Your task to perform on an android device: turn off sleep mode Image 0: 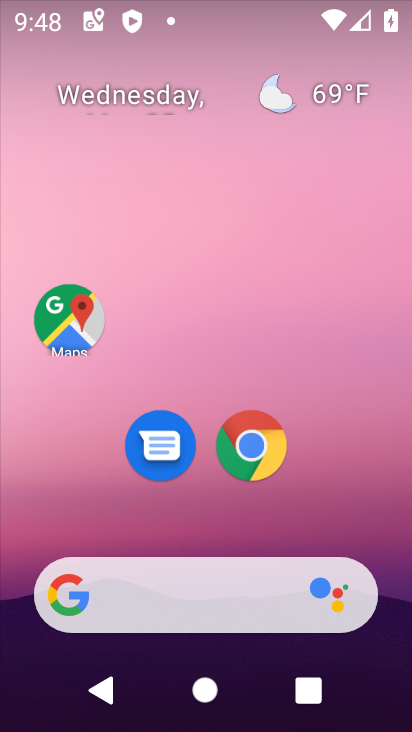
Step 0: drag from (394, 523) to (396, 0)
Your task to perform on an android device: turn off sleep mode Image 1: 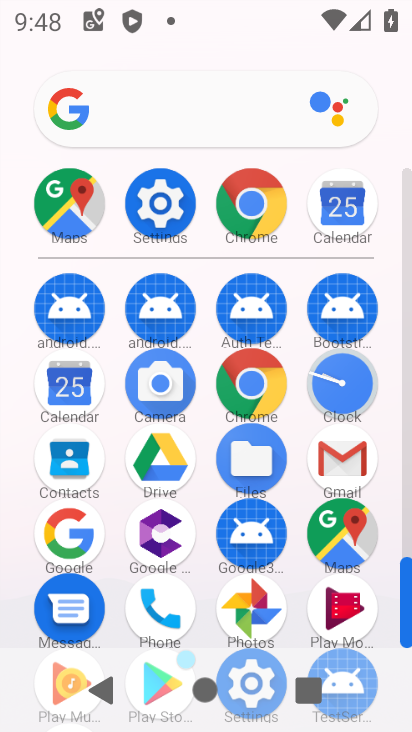
Step 1: drag from (407, 614) to (405, 730)
Your task to perform on an android device: turn off sleep mode Image 2: 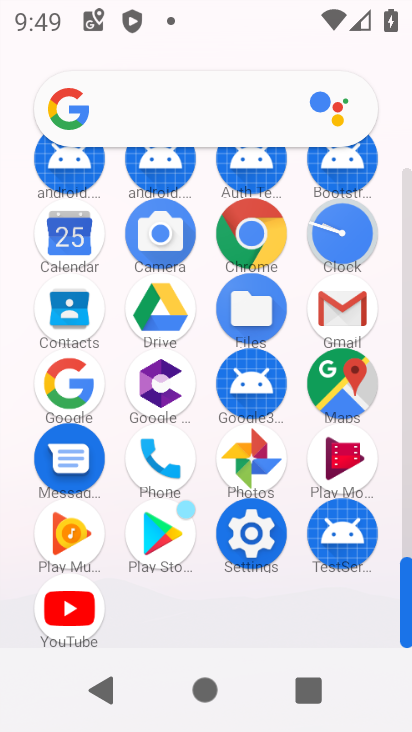
Step 2: click (242, 560)
Your task to perform on an android device: turn off sleep mode Image 3: 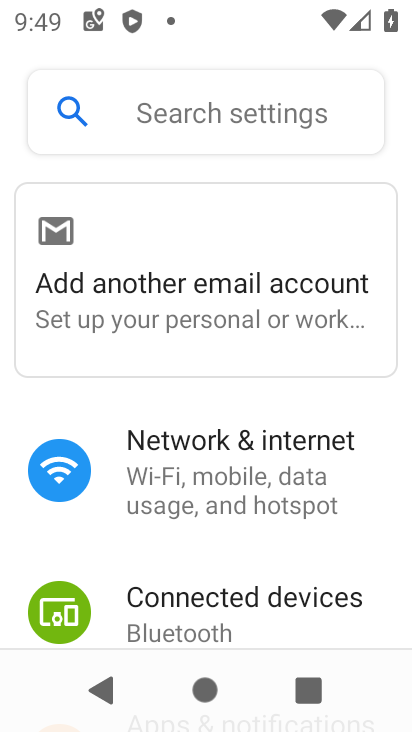
Step 3: drag from (297, 614) to (323, 110)
Your task to perform on an android device: turn off sleep mode Image 4: 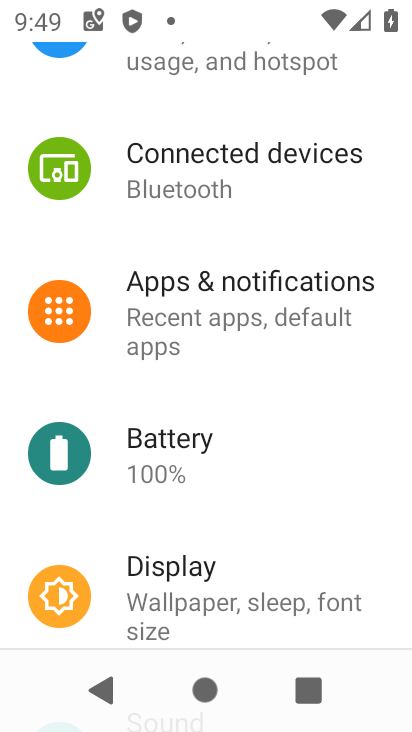
Step 4: click (229, 464)
Your task to perform on an android device: turn off sleep mode Image 5: 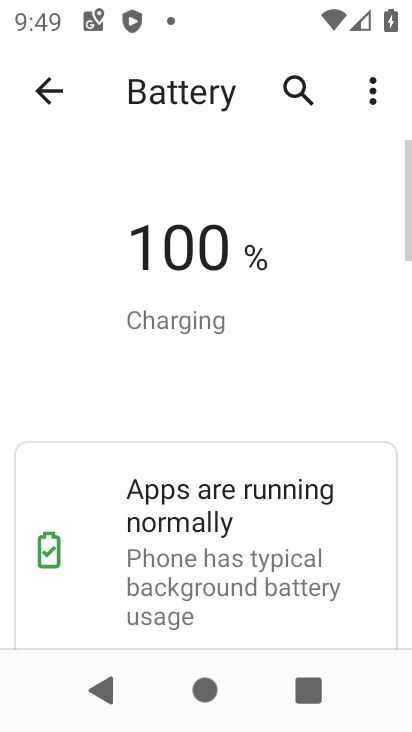
Step 5: click (242, 572)
Your task to perform on an android device: turn off sleep mode Image 6: 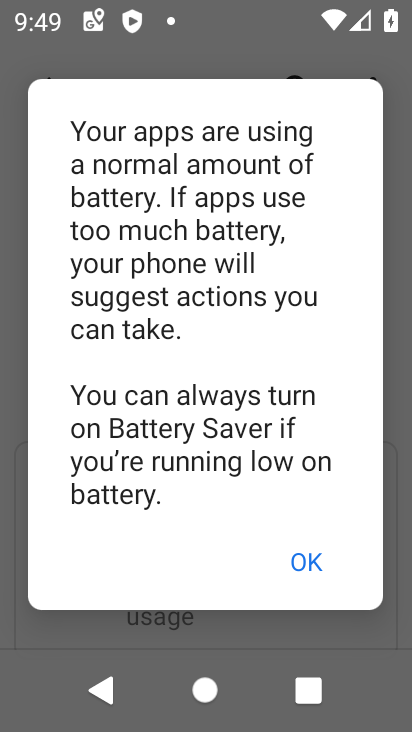
Step 6: click (308, 572)
Your task to perform on an android device: turn off sleep mode Image 7: 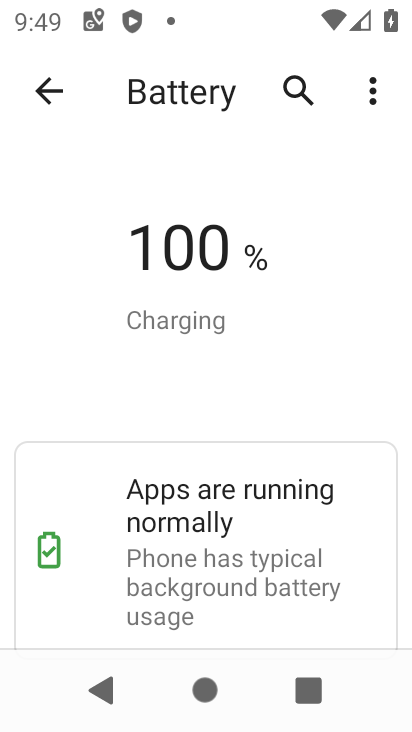
Step 7: drag from (308, 572) to (323, 296)
Your task to perform on an android device: turn off sleep mode Image 8: 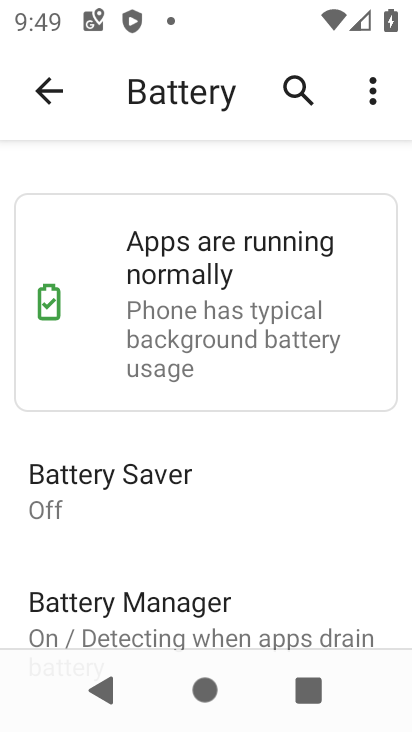
Step 8: drag from (263, 561) to (367, 96)
Your task to perform on an android device: turn off sleep mode Image 9: 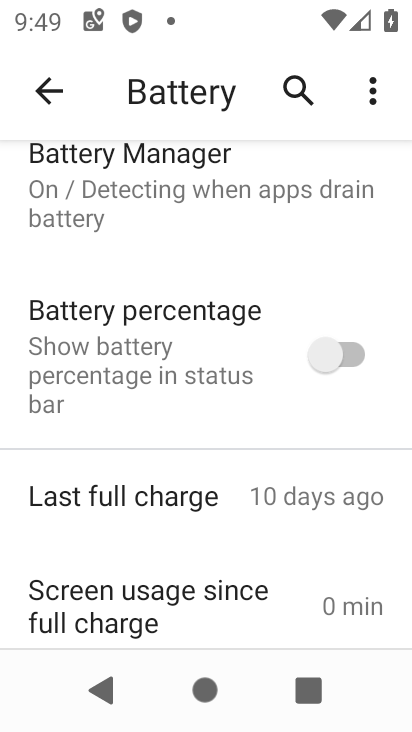
Step 9: click (253, 181)
Your task to perform on an android device: turn off sleep mode Image 10: 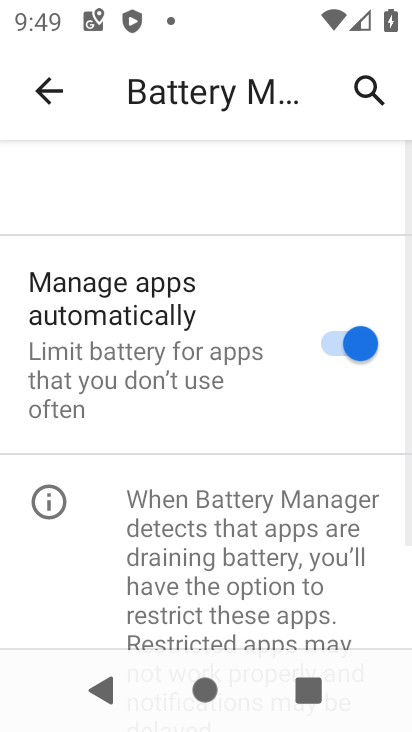
Step 10: drag from (275, 509) to (299, 140)
Your task to perform on an android device: turn off sleep mode Image 11: 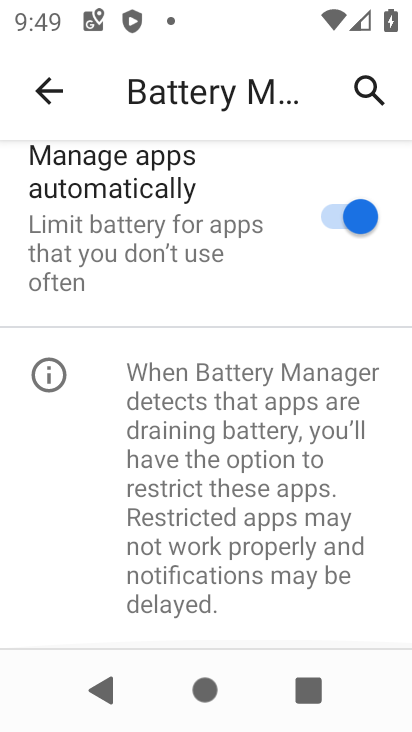
Step 11: drag from (290, 219) to (408, 706)
Your task to perform on an android device: turn off sleep mode Image 12: 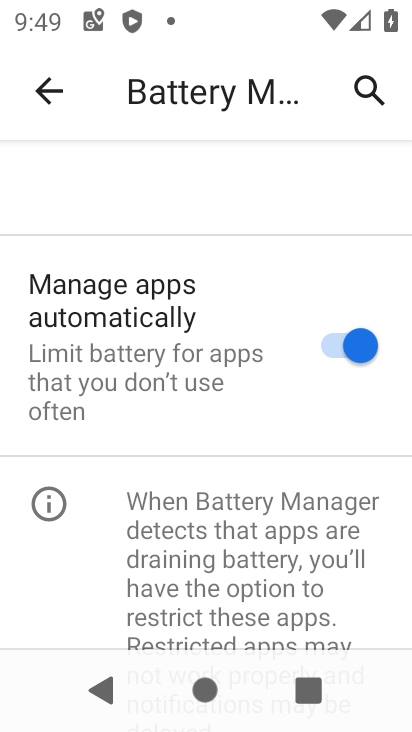
Step 12: click (74, 91)
Your task to perform on an android device: turn off sleep mode Image 13: 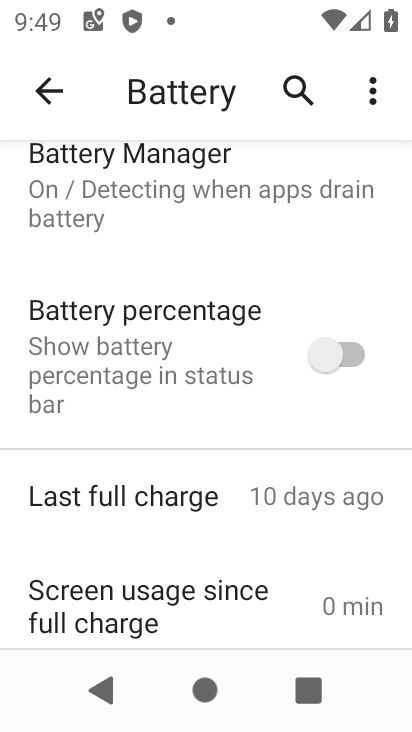
Step 13: drag from (203, 533) to (232, 405)
Your task to perform on an android device: turn off sleep mode Image 14: 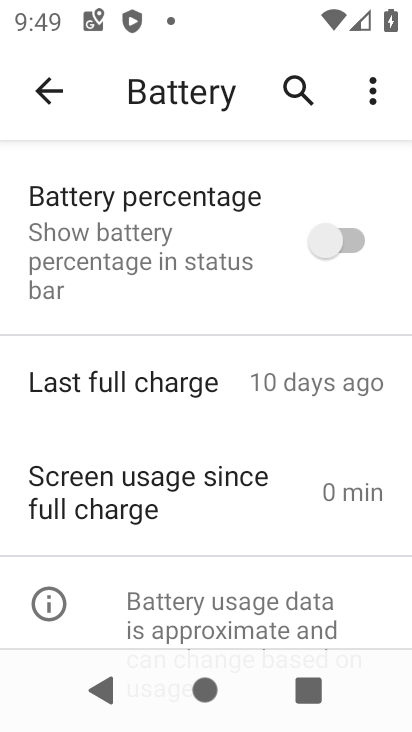
Step 14: click (219, 532)
Your task to perform on an android device: turn off sleep mode Image 15: 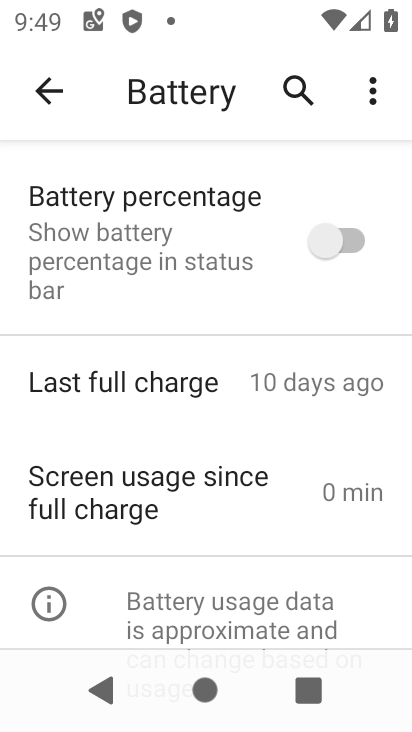
Step 15: click (238, 357)
Your task to perform on an android device: turn off sleep mode Image 16: 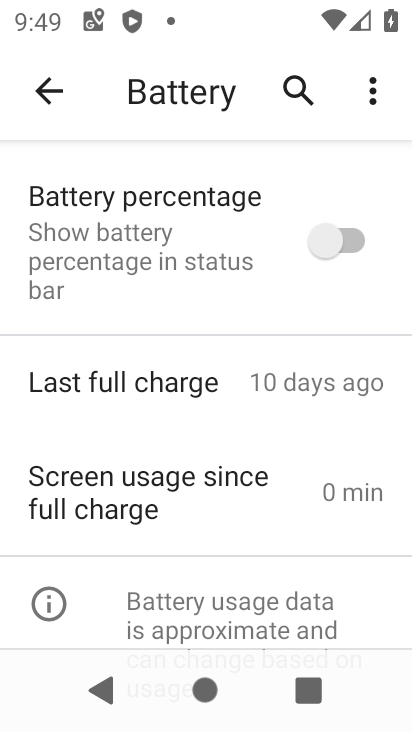
Step 16: drag from (258, 209) to (303, 707)
Your task to perform on an android device: turn off sleep mode Image 17: 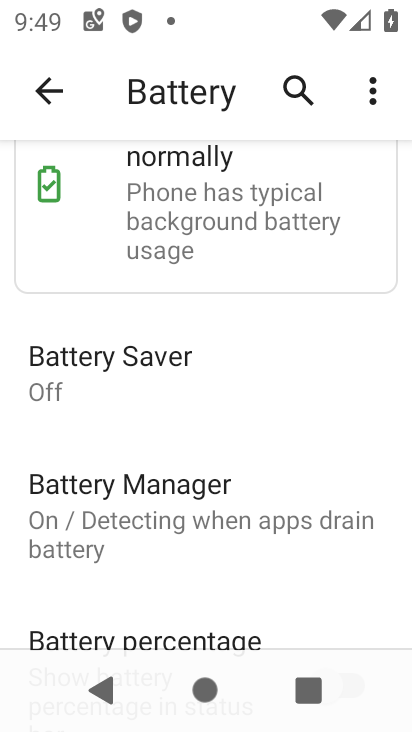
Step 17: drag from (240, 230) to (285, 646)
Your task to perform on an android device: turn off sleep mode Image 18: 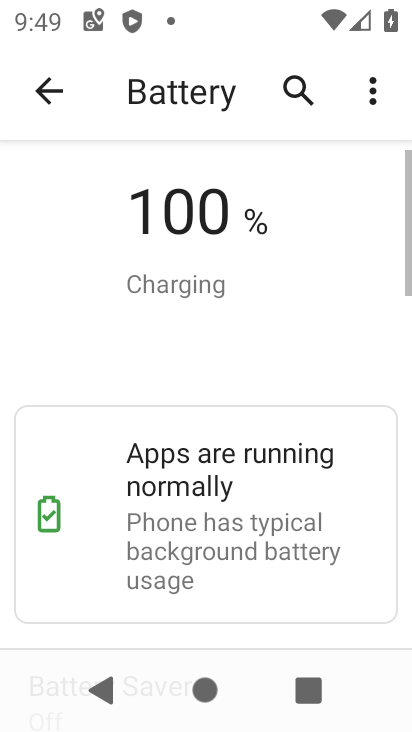
Step 18: drag from (285, 233) to (289, 632)
Your task to perform on an android device: turn off sleep mode Image 19: 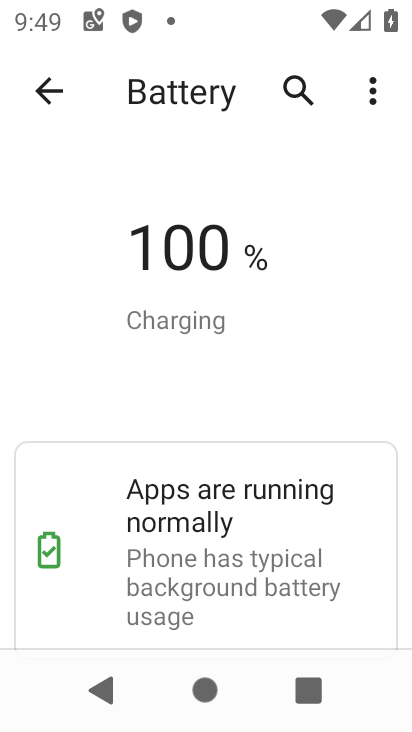
Step 19: click (376, 85)
Your task to perform on an android device: turn off sleep mode Image 20: 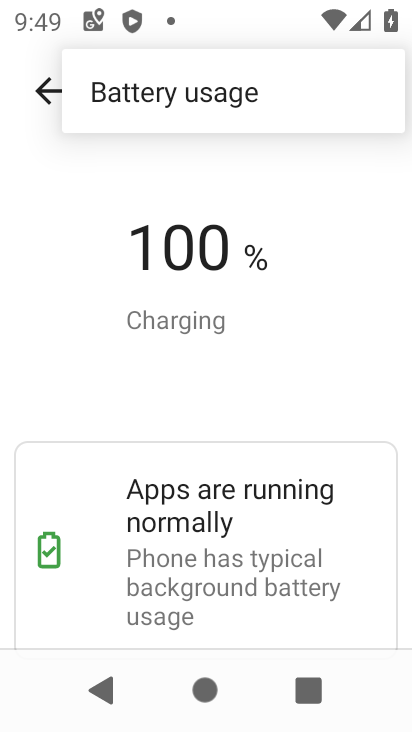
Step 20: click (283, 106)
Your task to perform on an android device: turn off sleep mode Image 21: 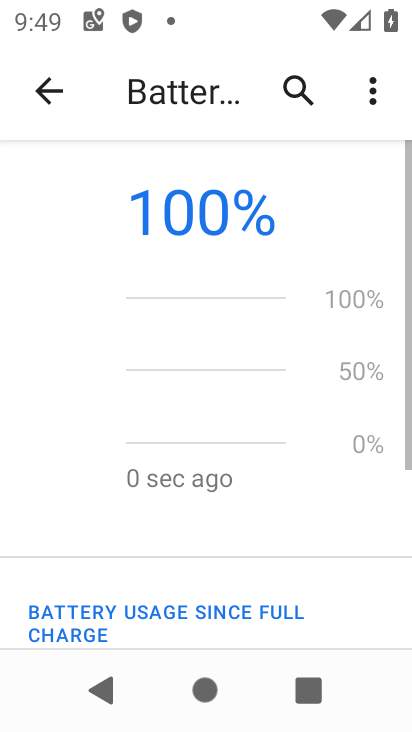
Step 21: drag from (260, 559) to (279, 150)
Your task to perform on an android device: turn off sleep mode Image 22: 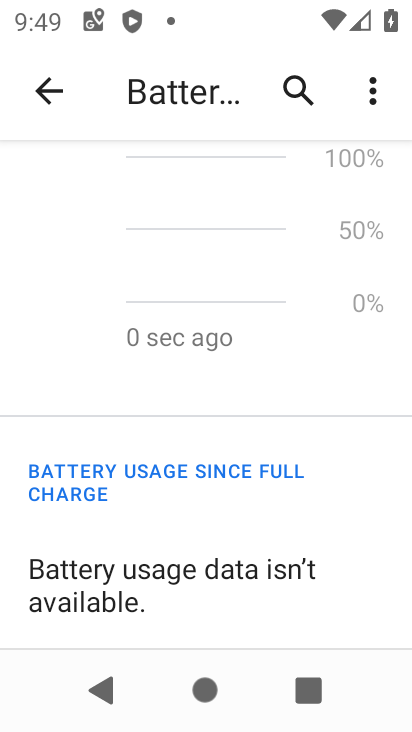
Step 22: click (109, 492)
Your task to perform on an android device: turn off sleep mode Image 23: 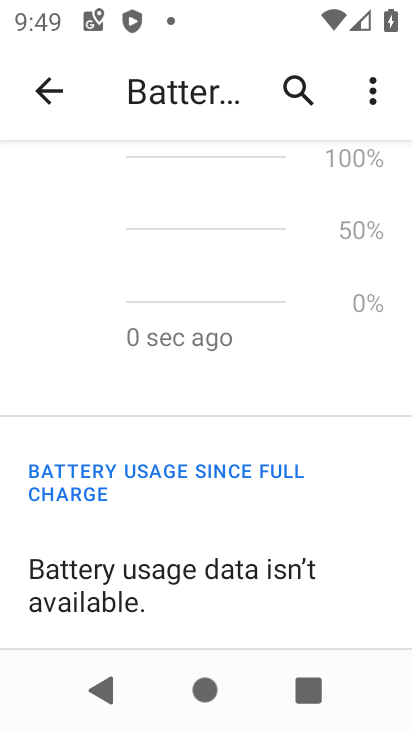
Step 23: click (120, 611)
Your task to perform on an android device: turn off sleep mode Image 24: 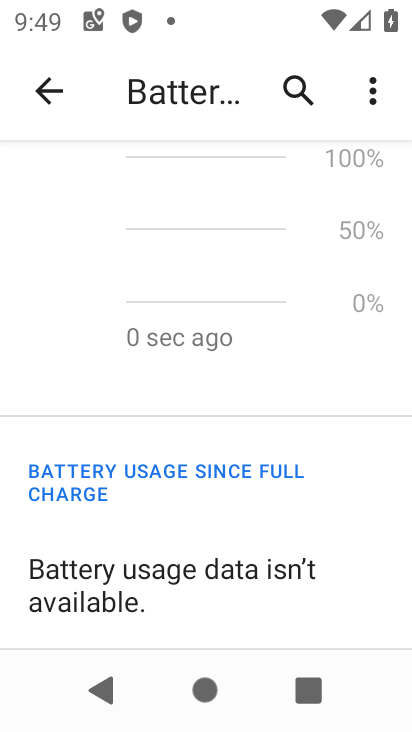
Step 24: click (49, 88)
Your task to perform on an android device: turn off sleep mode Image 25: 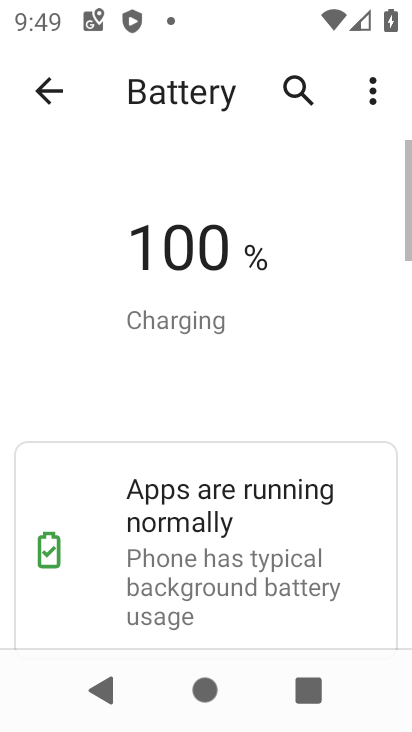
Step 25: click (49, 88)
Your task to perform on an android device: turn off sleep mode Image 26: 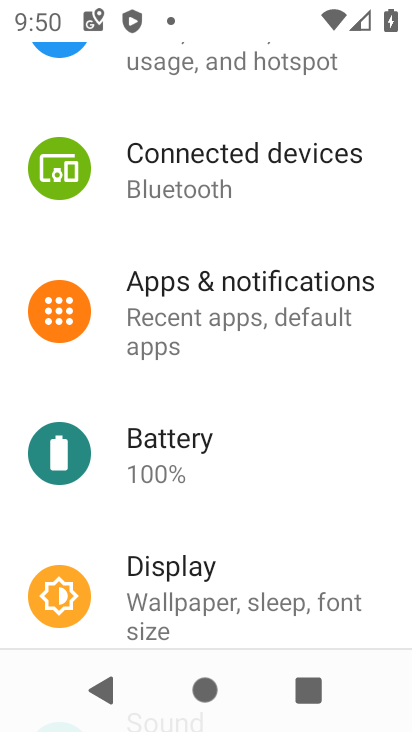
Step 26: click (240, 567)
Your task to perform on an android device: turn off sleep mode Image 27: 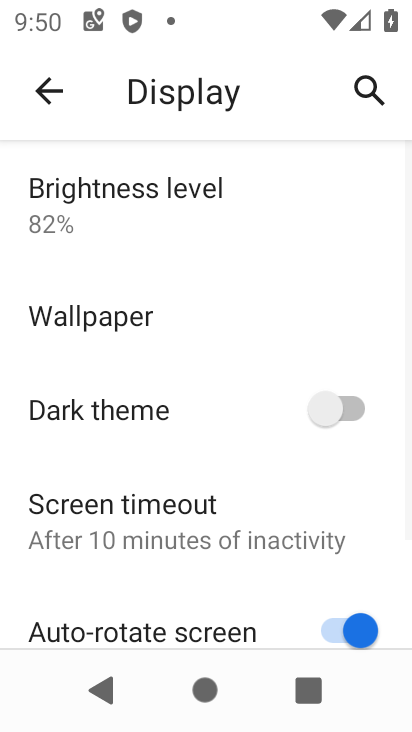
Step 27: task complete